Your task to perform on an android device: snooze an email in the gmail app Image 0: 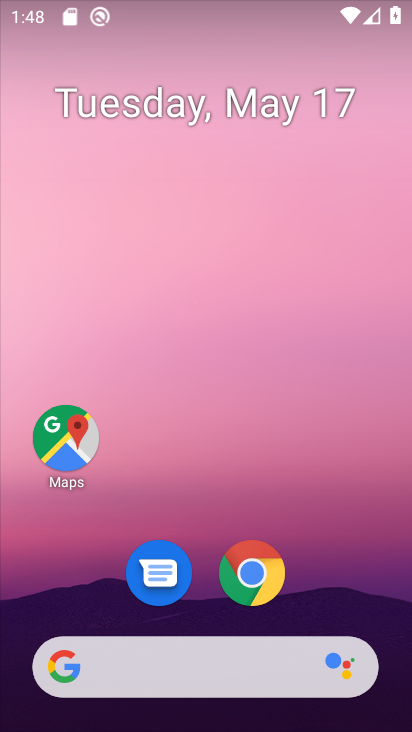
Step 0: drag from (236, 636) to (108, 90)
Your task to perform on an android device: snooze an email in the gmail app Image 1: 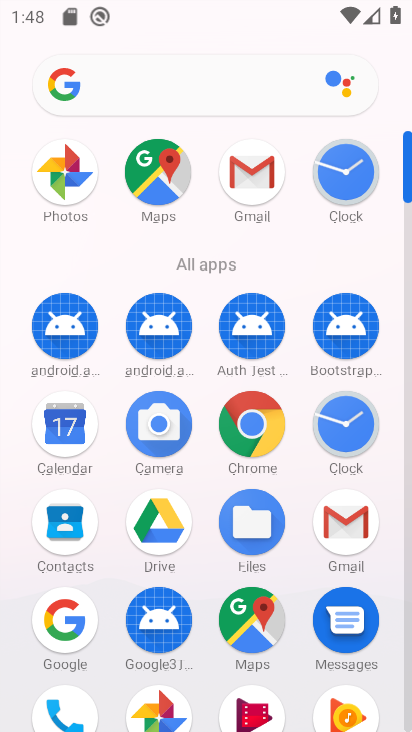
Step 1: click (340, 554)
Your task to perform on an android device: snooze an email in the gmail app Image 2: 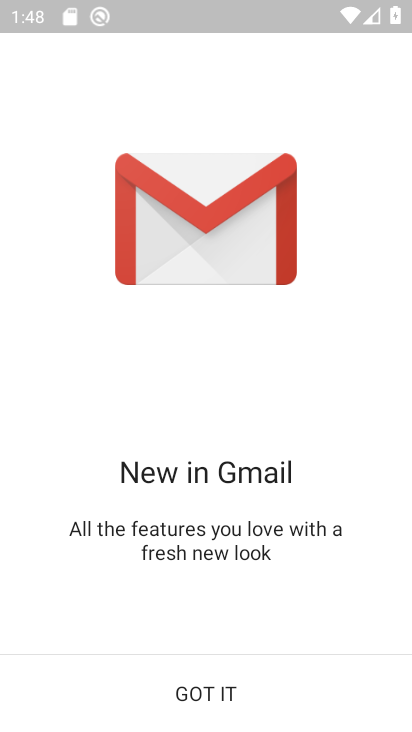
Step 2: click (250, 669)
Your task to perform on an android device: snooze an email in the gmail app Image 3: 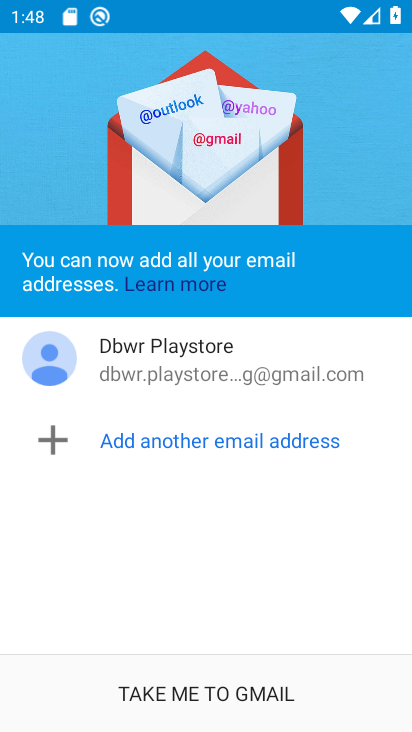
Step 3: click (298, 699)
Your task to perform on an android device: snooze an email in the gmail app Image 4: 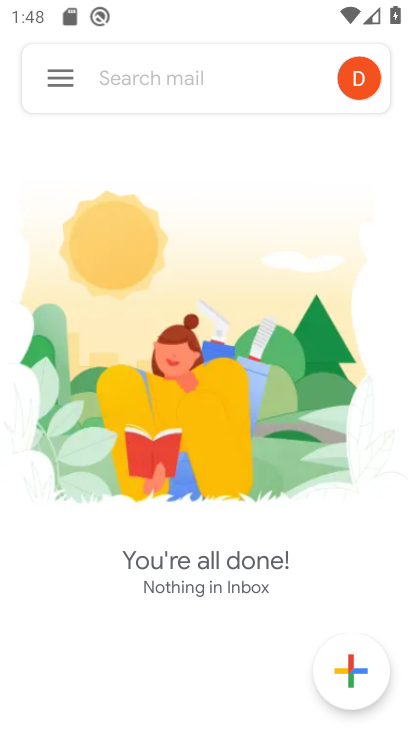
Step 4: task complete